Your task to perform on an android device: Go to ESPN.com Image 0: 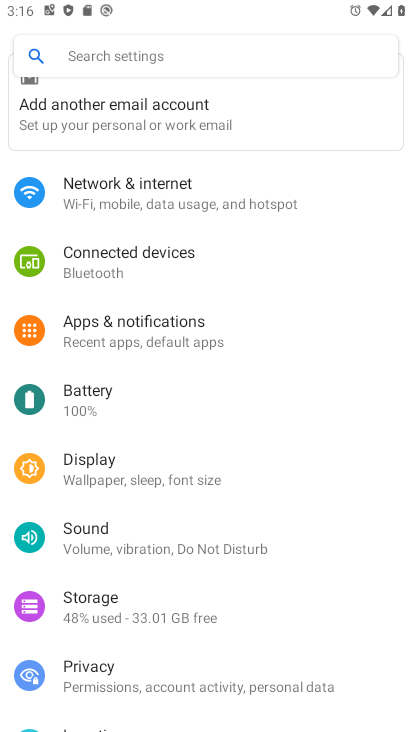
Step 0: press home button
Your task to perform on an android device: Go to ESPN.com Image 1: 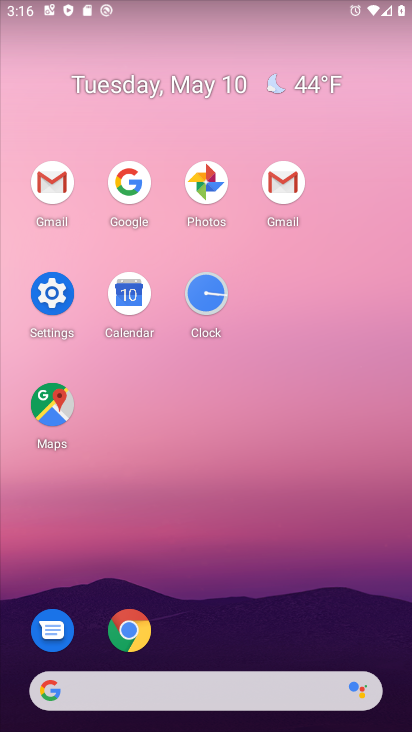
Step 1: click (149, 638)
Your task to perform on an android device: Go to ESPN.com Image 2: 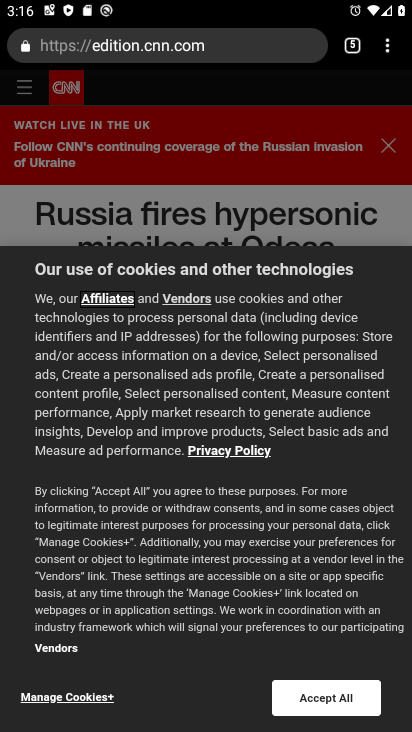
Step 2: click (357, 40)
Your task to perform on an android device: Go to ESPN.com Image 3: 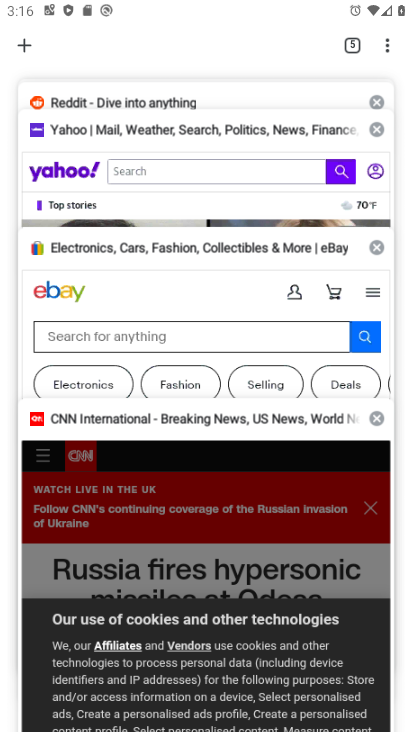
Step 3: drag from (190, 132) to (249, 456)
Your task to perform on an android device: Go to ESPN.com Image 4: 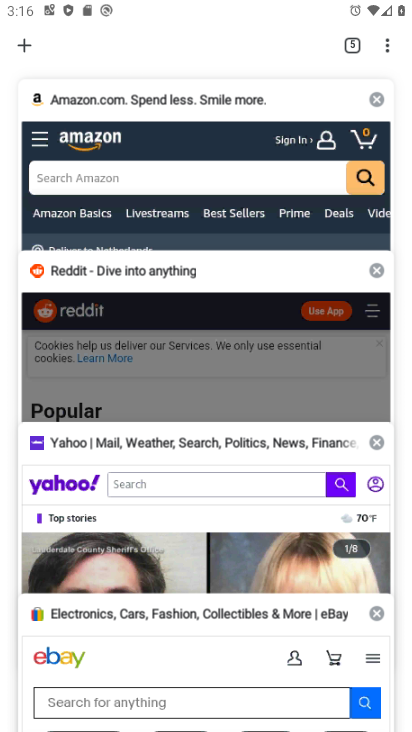
Step 4: click (15, 43)
Your task to perform on an android device: Go to ESPN.com Image 5: 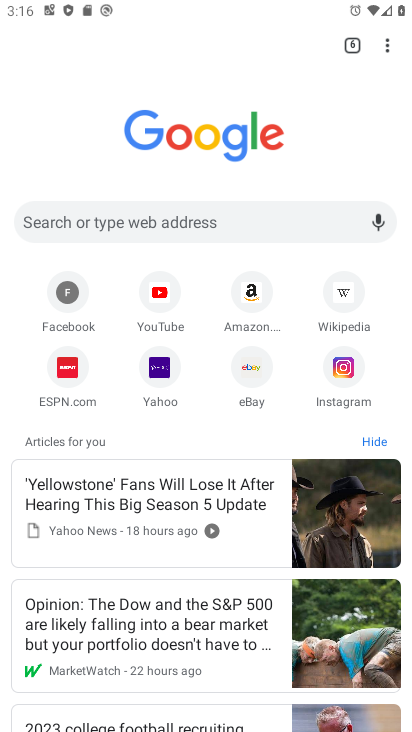
Step 5: click (67, 380)
Your task to perform on an android device: Go to ESPN.com Image 6: 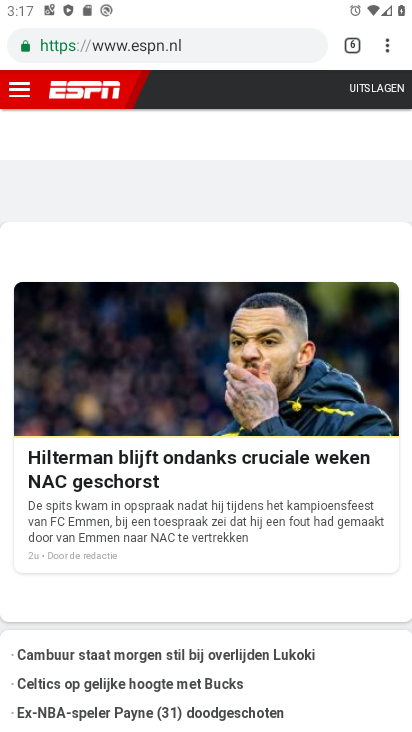
Step 6: task complete